Your task to perform on an android device: Check the weather Image 0: 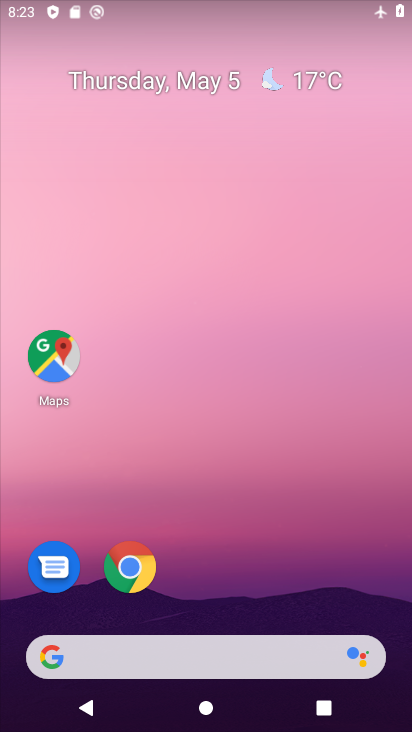
Step 0: click (268, 78)
Your task to perform on an android device: Check the weather Image 1: 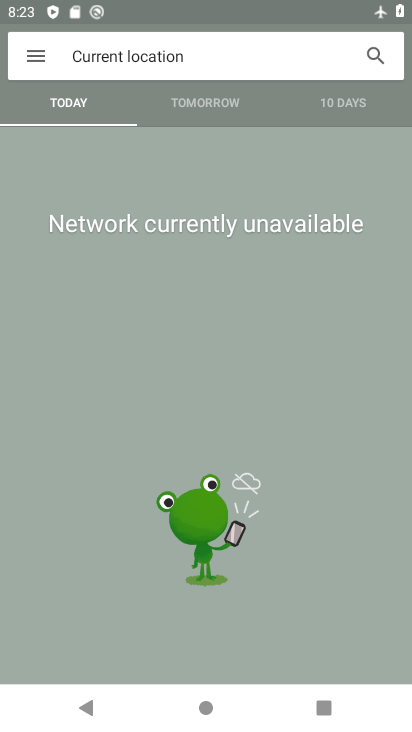
Step 1: task complete